Your task to perform on an android device: uninstall "PlayWell" Image 0: 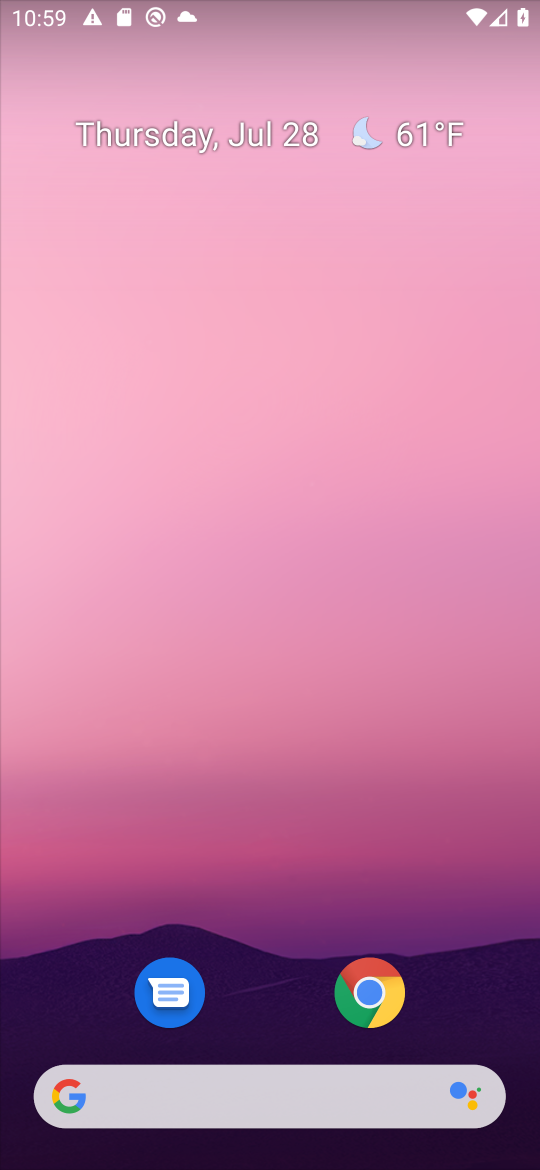
Step 0: drag from (206, 1084) to (428, 42)
Your task to perform on an android device: uninstall "PlayWell" Image 1: 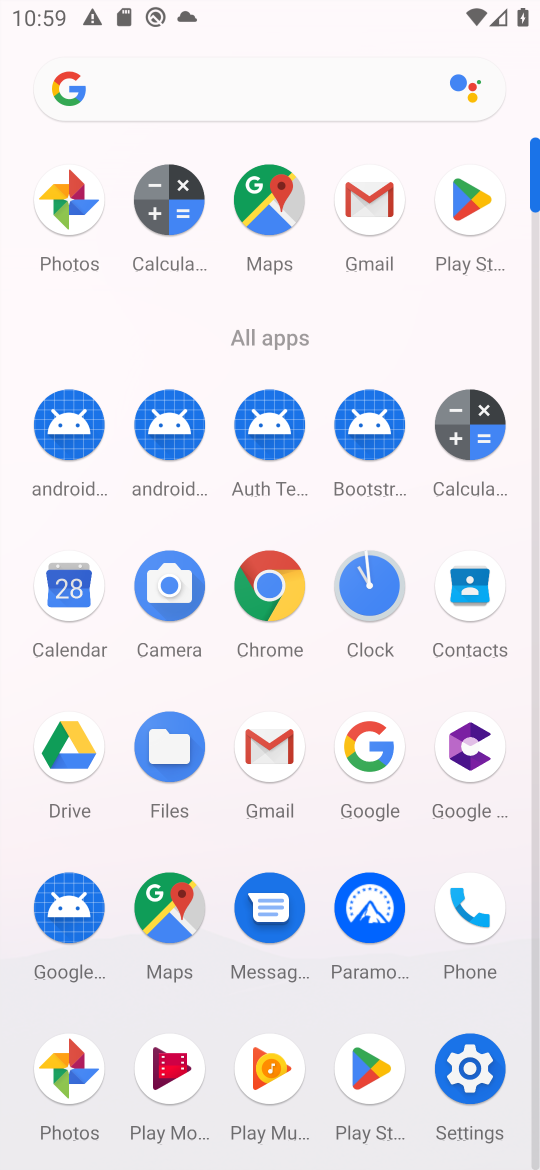
Step 1: click (464, 199)
Your task to perform on an android device: uninstall "PlayWell" Image 2: 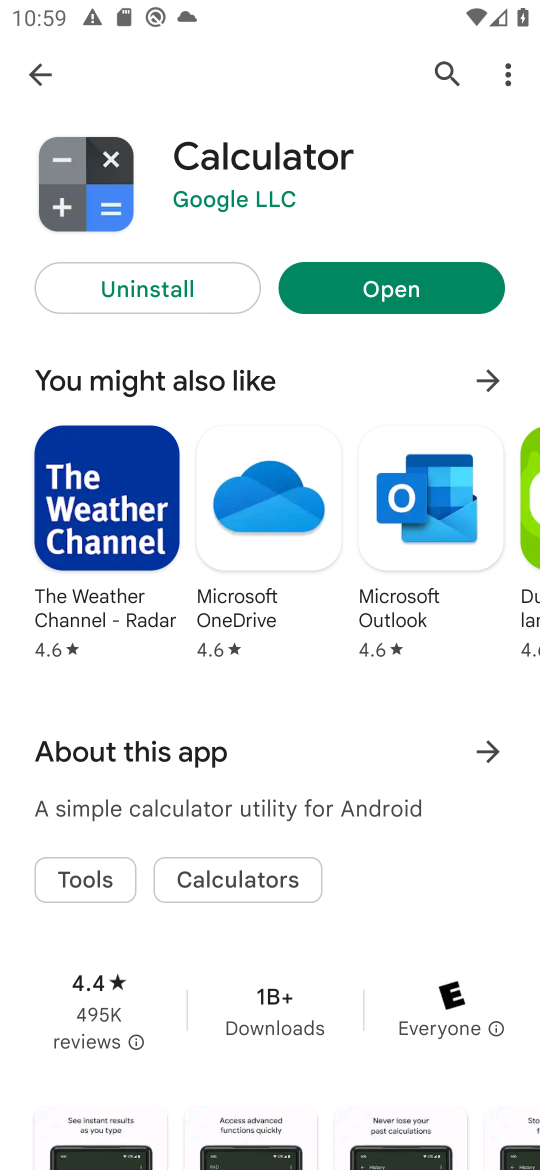
Step 2: click (437, 71)
Your task to perform on an android device: uninstall "PlayWell" Image 3: 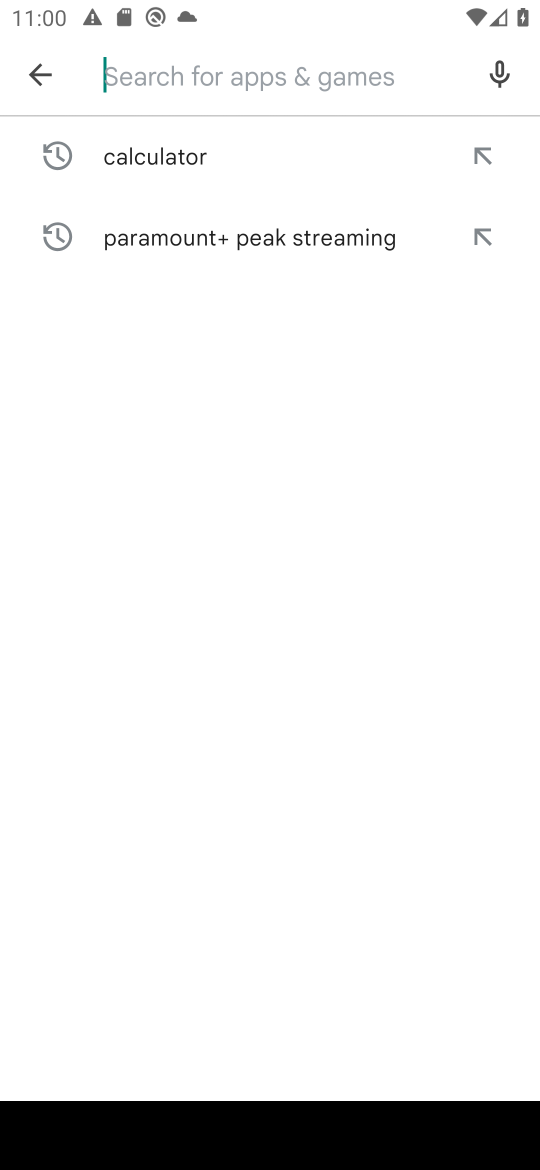
Step 3: type "PlayWell"
Your task to perform on an android device: uninstall "PlayWell" Image 4: 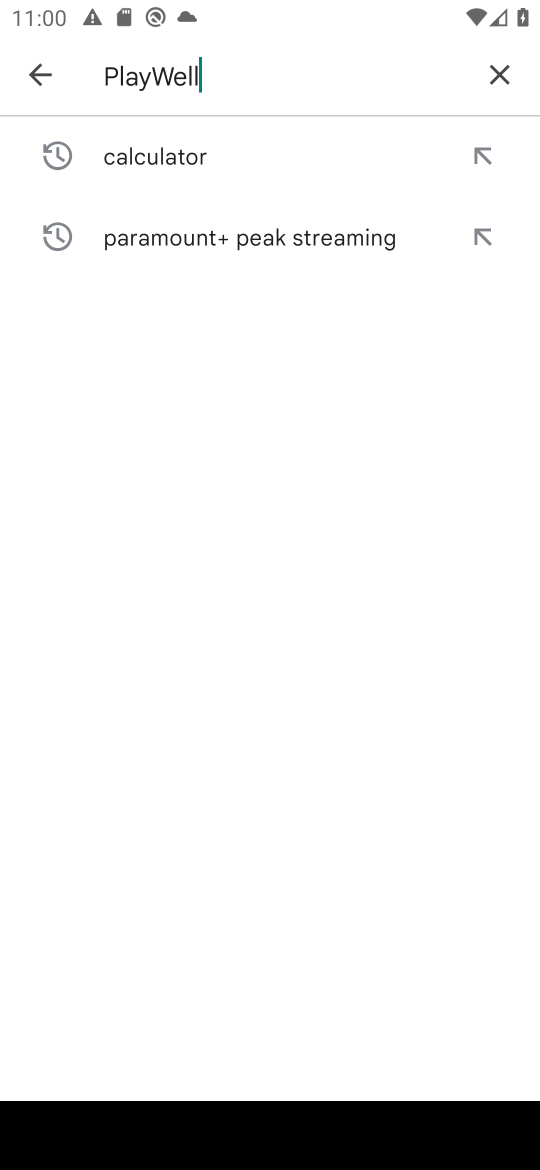
Step 4: type ""
Your task to perform on an android device: uninstall "PlayWell" Image 5: 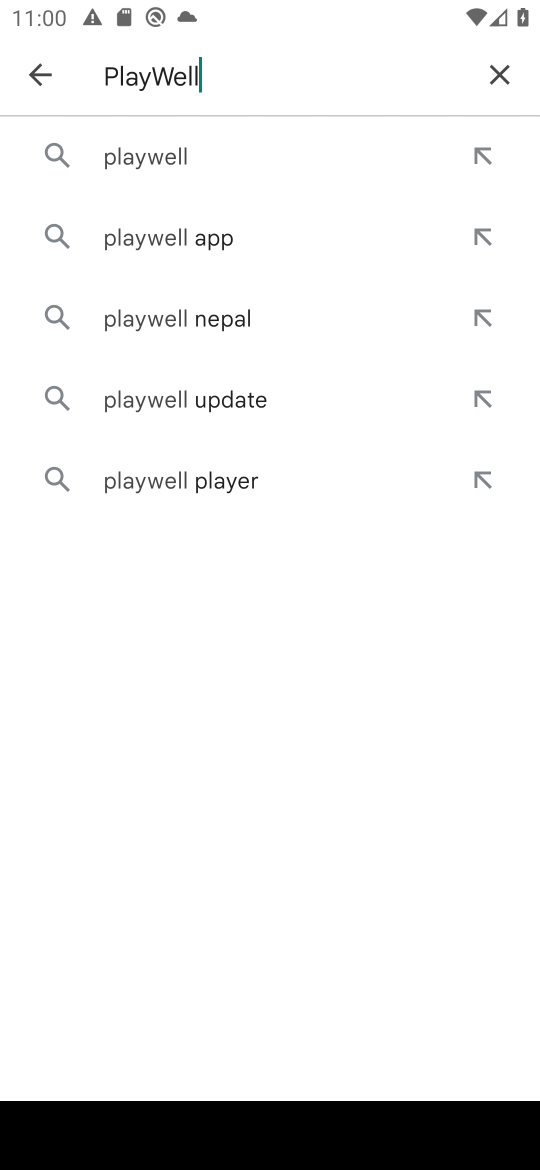
Step 5: click (147, 157)
Your task to perform on an android device: uninstall "PlayWell" Image 6: 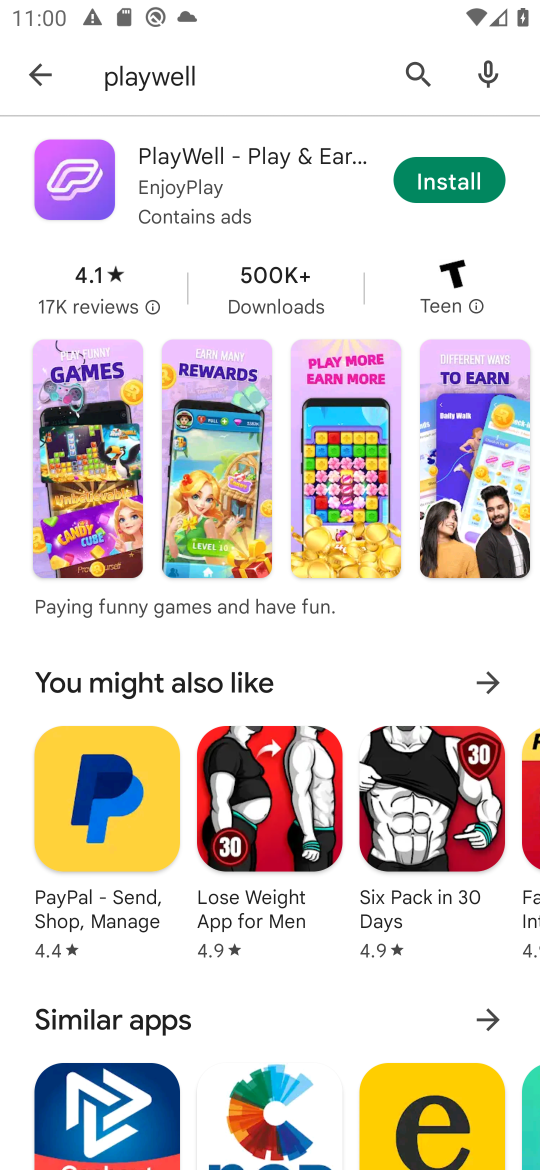
Step 6: task complete